Your task to perform on an android device: What's the weather going to be tomorrow? Image 0: 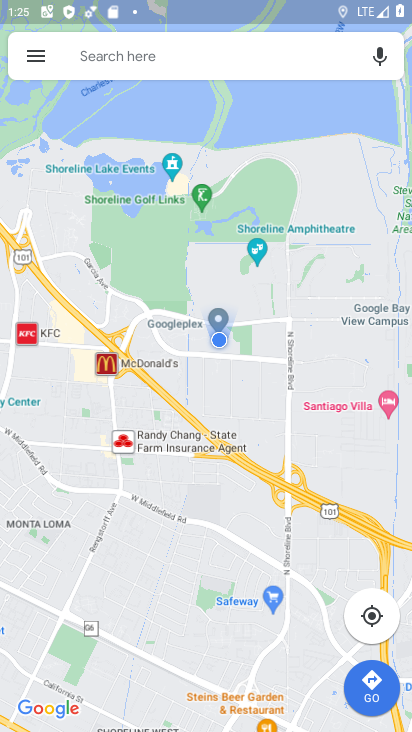
Step 0: press home button
Your task to perform on an android device: What's the weather going to be tomorrow? Image 1: 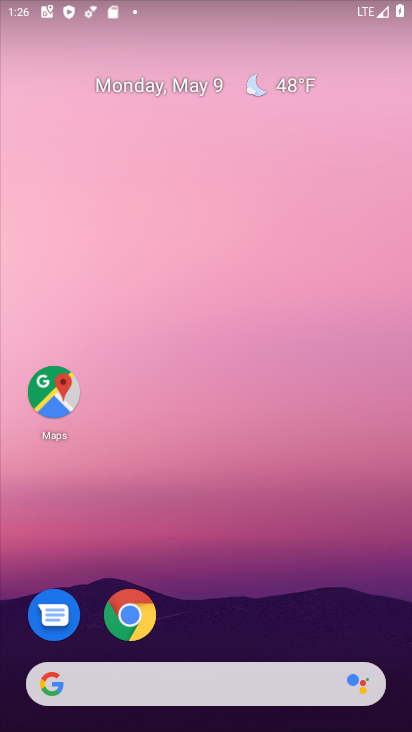
Step 1: click (285, 88)
Your task to perform on an android device: What's the weather going to be tomorrow? Image 2: 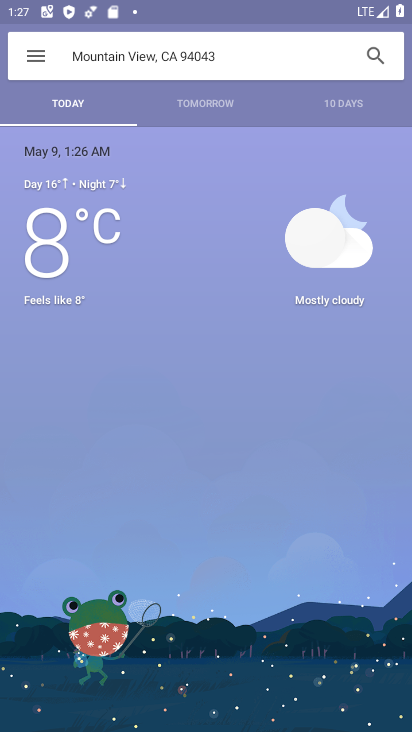
Step 2: click (193, 107)
Your task to perform on an android device: What's the weather going to be tomorrow? Image 3: 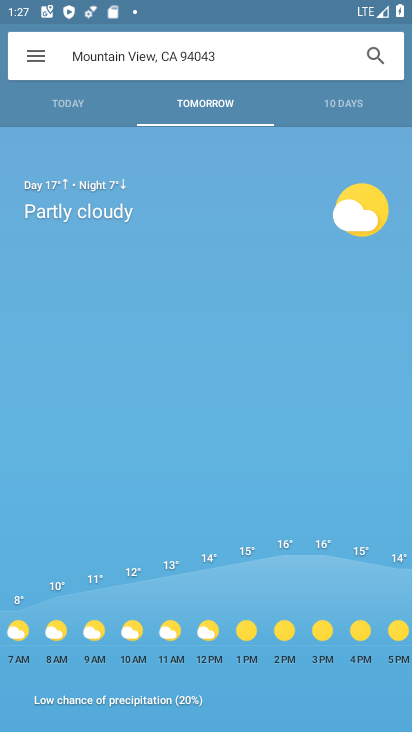
Step 3: task complete